Your task to perform on an android device: empty trash in google photos Image 0: 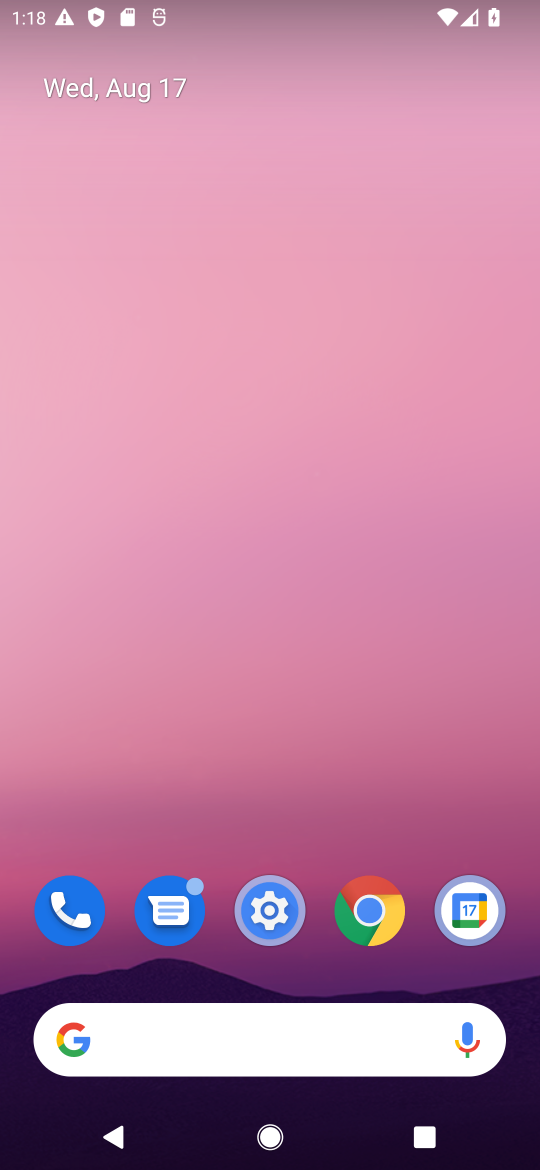
Step 0: drag from (241, 957) to (395, 2)
Your task to perform on an android device: empty trash in google photos Image 1: 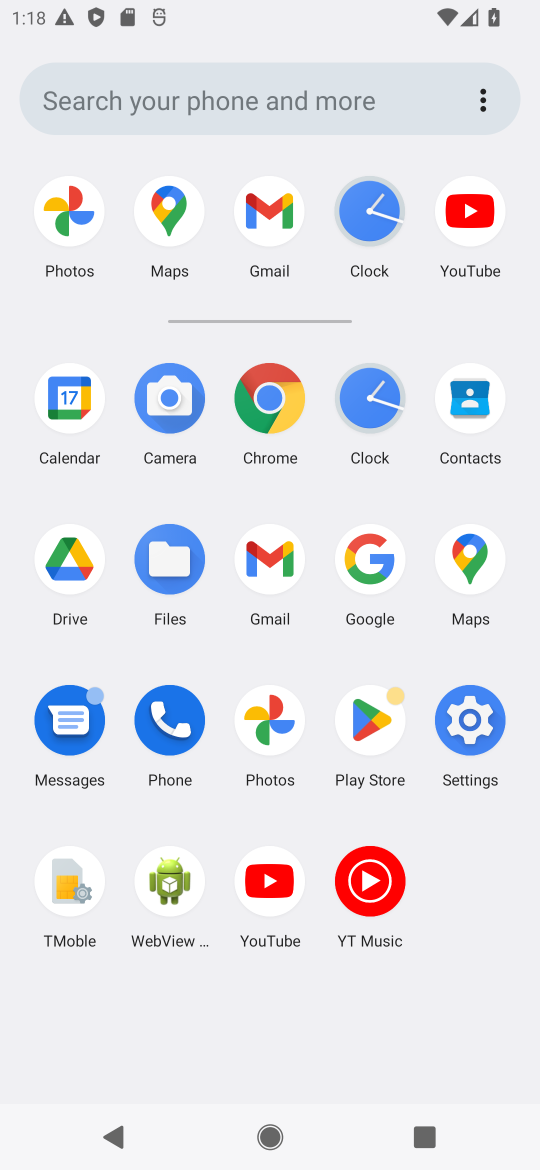
Step 1: click (271, 710)
Your task to perform on an android device: empty trash in google photos Image 2: 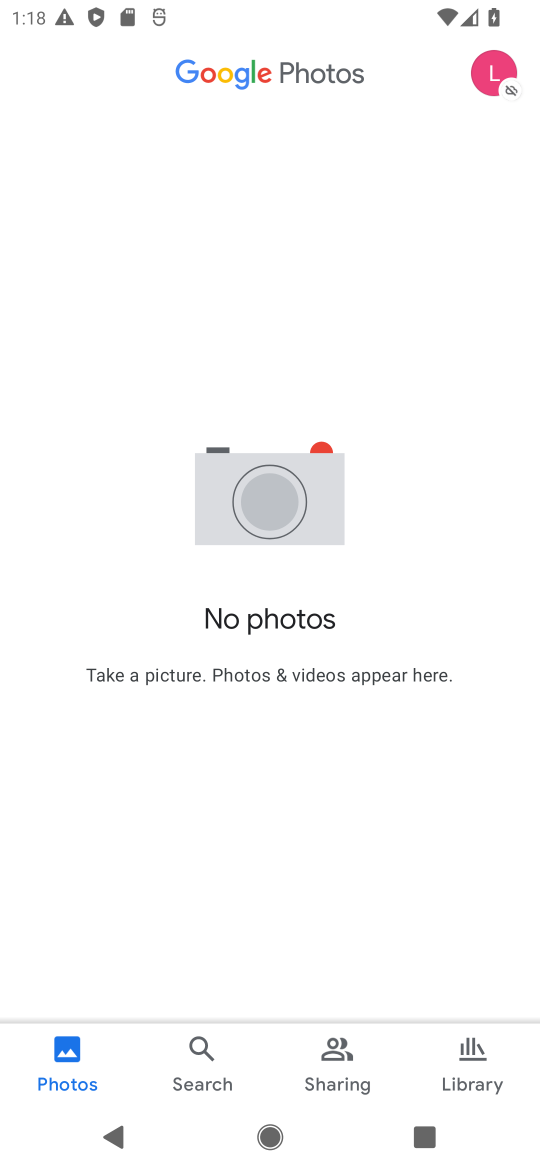
Step 2: click (493, 58)
Your task to perform on an android device: empty trash in google photos Image 3: 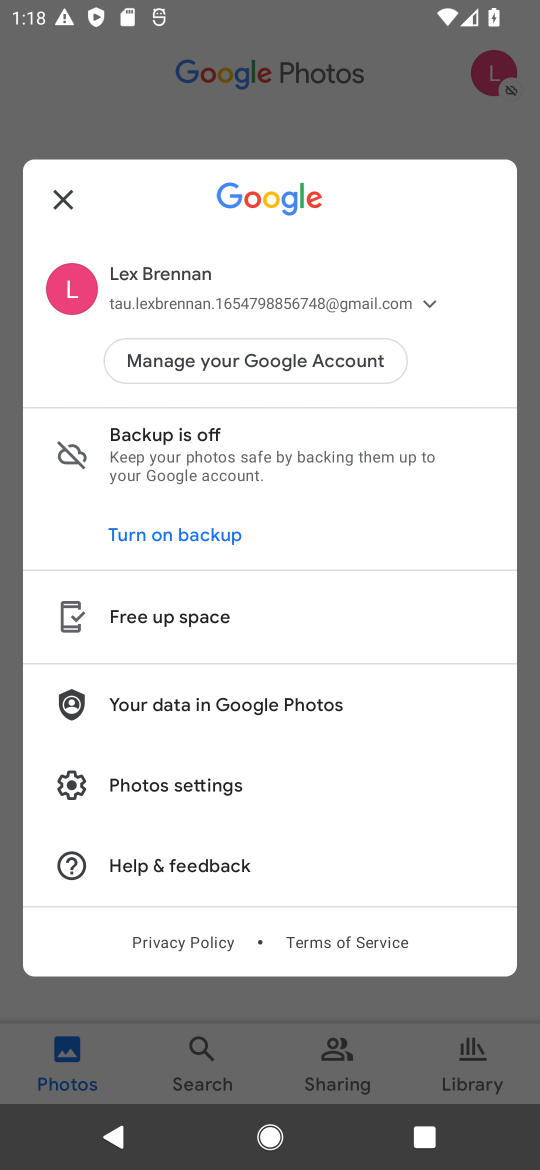
Step 3: task complete